Your task to perform on an android device: turn on wifi Image 0: 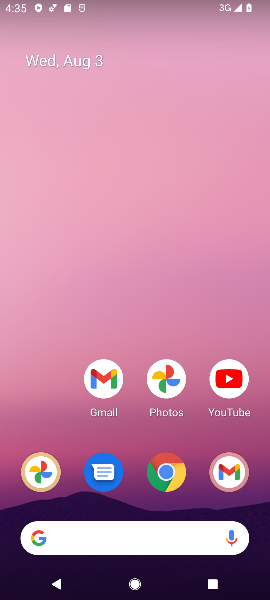
Step 0: drag from (140, 446) to (198, 21)
Your task to perform on an android device: turn on wifi Image 1: 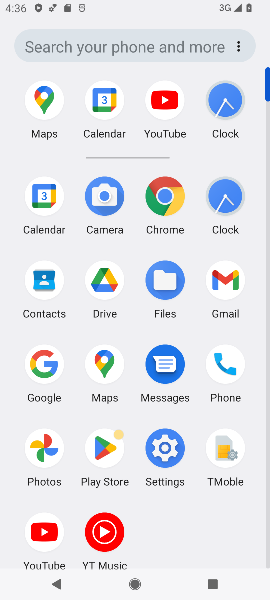
Step 1: click (159, 442)
Your task to perform on an android device: turn on wifi Image 2: 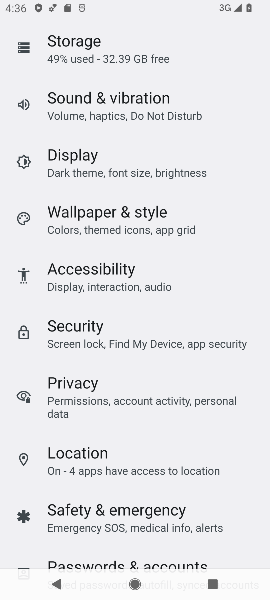
Step 2: drag from (113, 113) to (58, 506)
Your task to perform on an android device: turn on wifi Image 3: 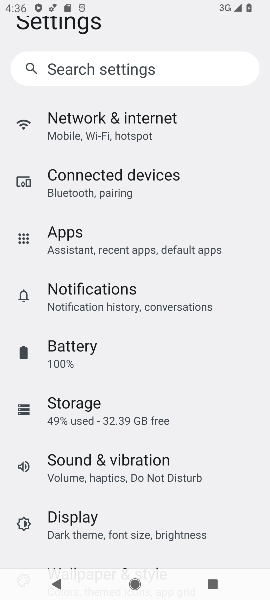
Step 3: click (99, 124)
Your task to perform on an android device: turn on wifi Image 4: 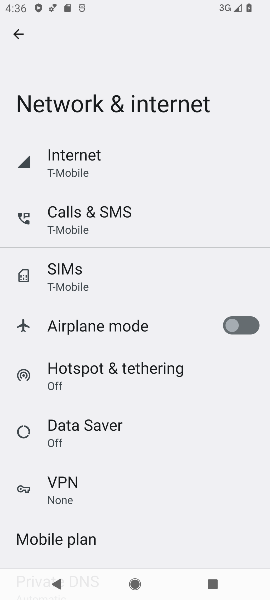
Step 4: click (72, 161)
Your task to perform on an android device: turn on wifi Image 5: 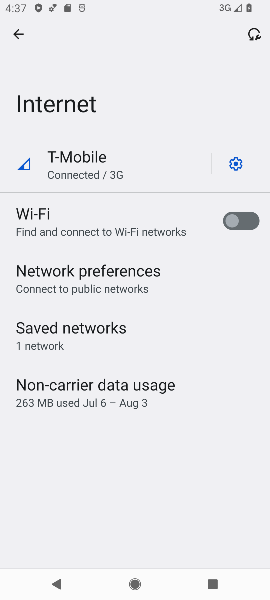
Step 5: click (238, 213)
Your task to perform on an android device: turn on wifi Image 6: 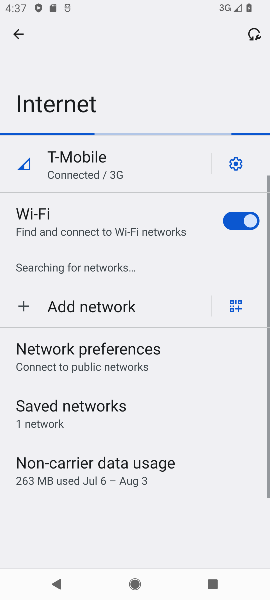
Step 6: task complete